Your task to perform on an android device: Open Amazon Image 0: 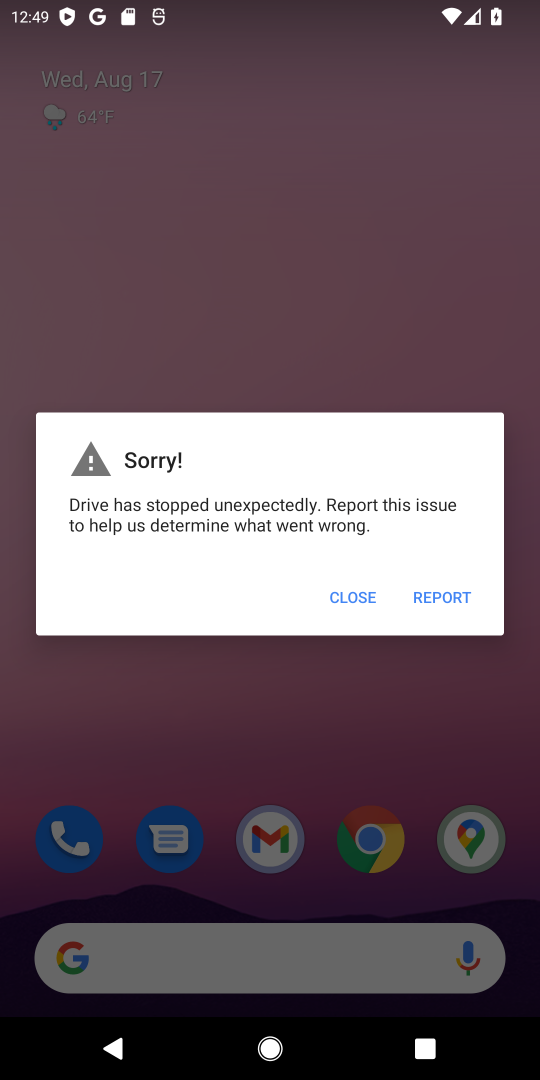
Step 0: press home button
Your task to perform on an android device: Open Amazon Image 1: 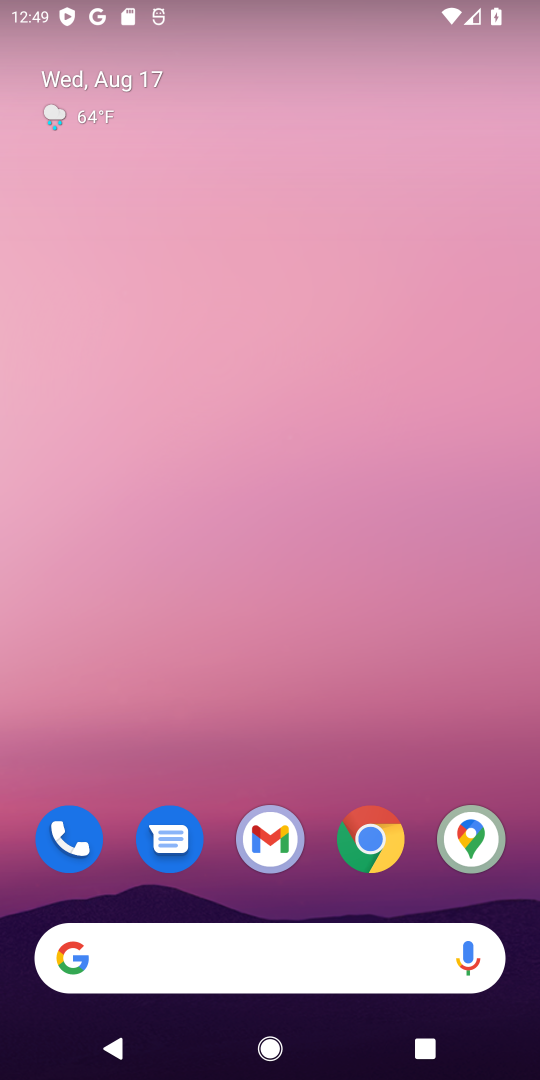
Step 1: drag from (205, 979) to (407, 155)
Your task to perform on an android device: Open Amazon Image 2: 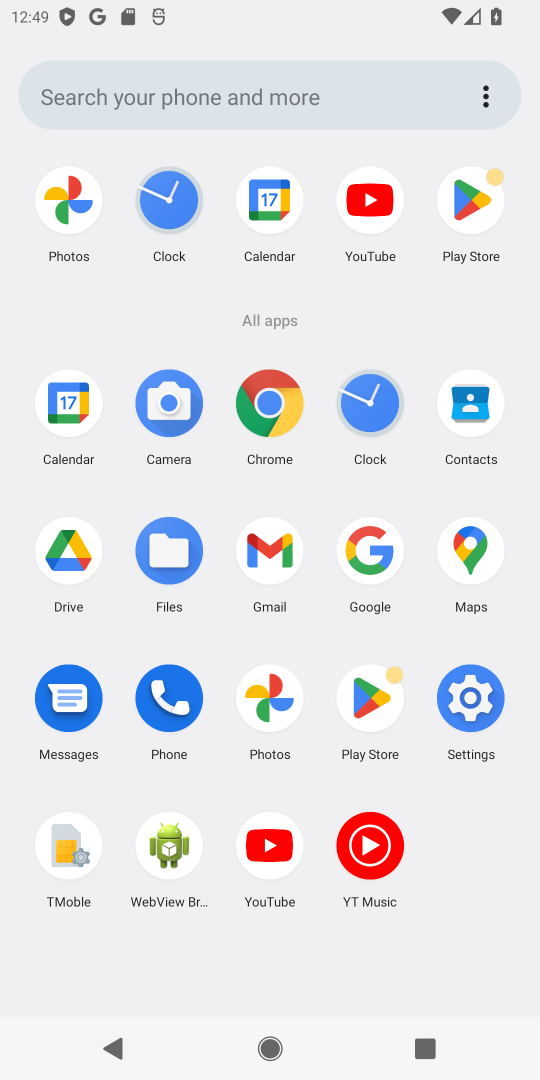
Step 2: click (363, 554)
Your task to perform on an android device: Open Amazon Image 3: 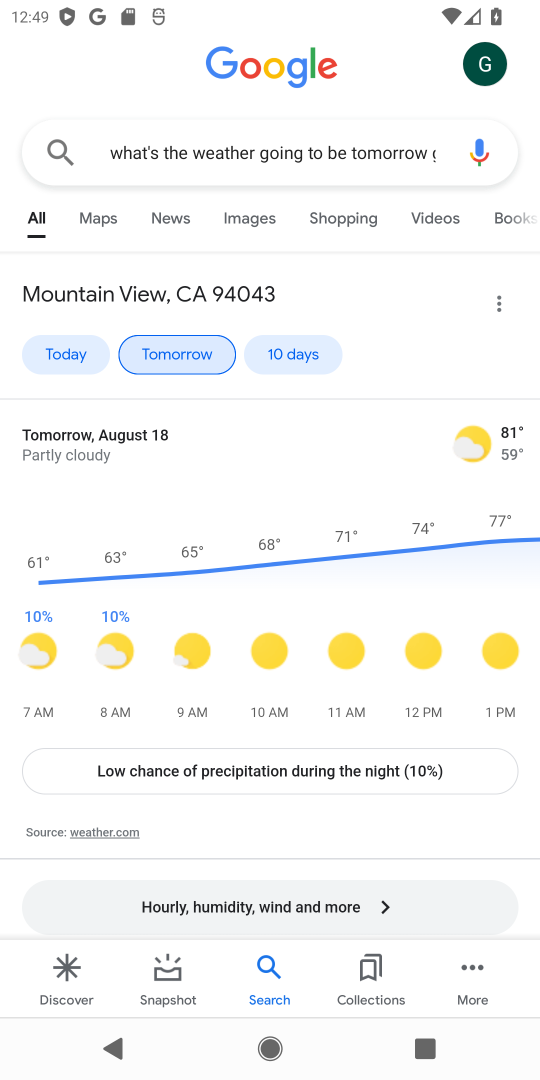
Step 3: click (441, 149)
Your task to perform on an android device: Open Amazon Image 4: 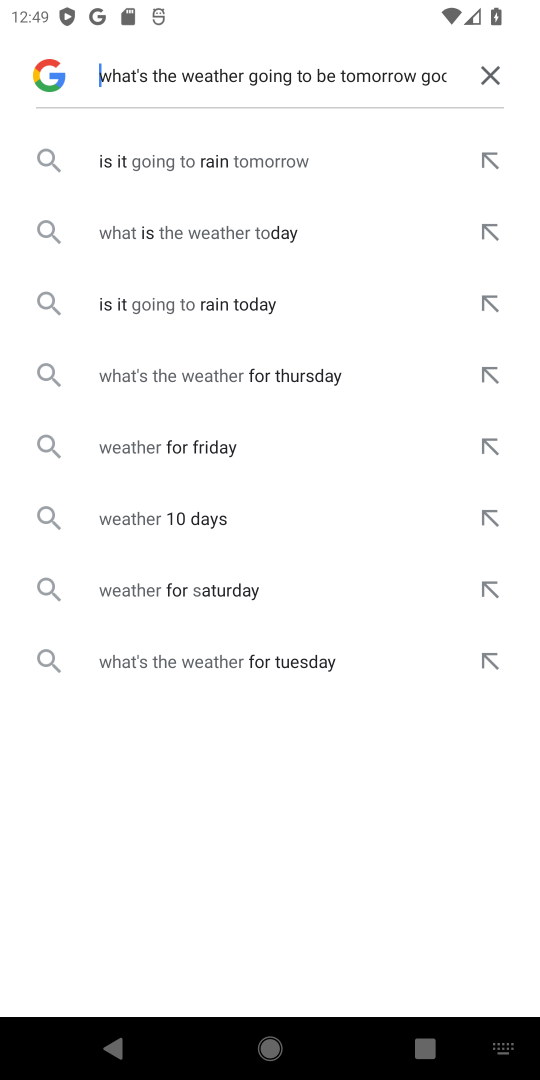
Step 4: click (490, 68)
Your task to perform on an android device: Open Amazon Image 5: 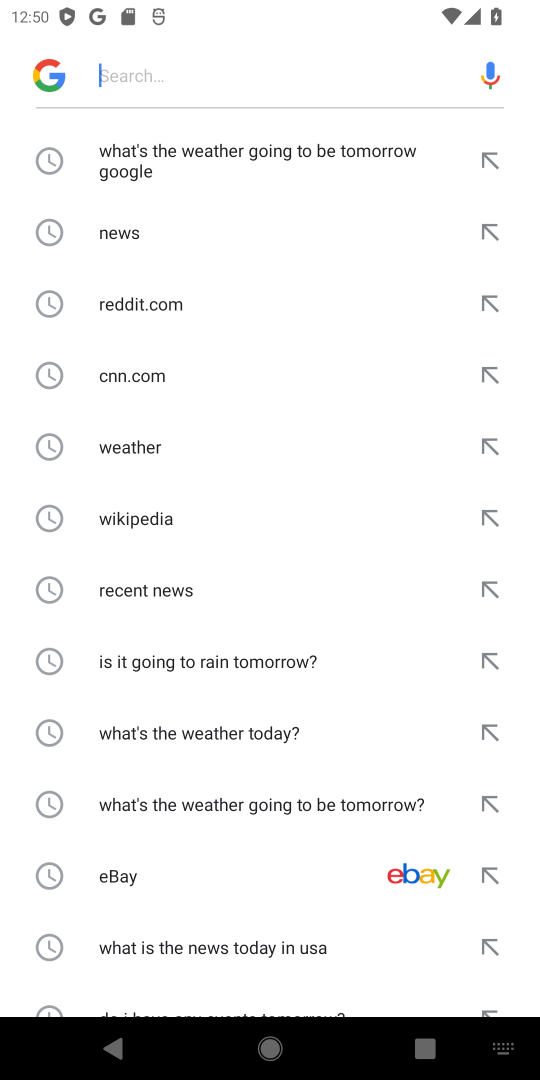
Step 5: type "Amazon"
Your task to perform on an android device: Open Amazon Image 6: 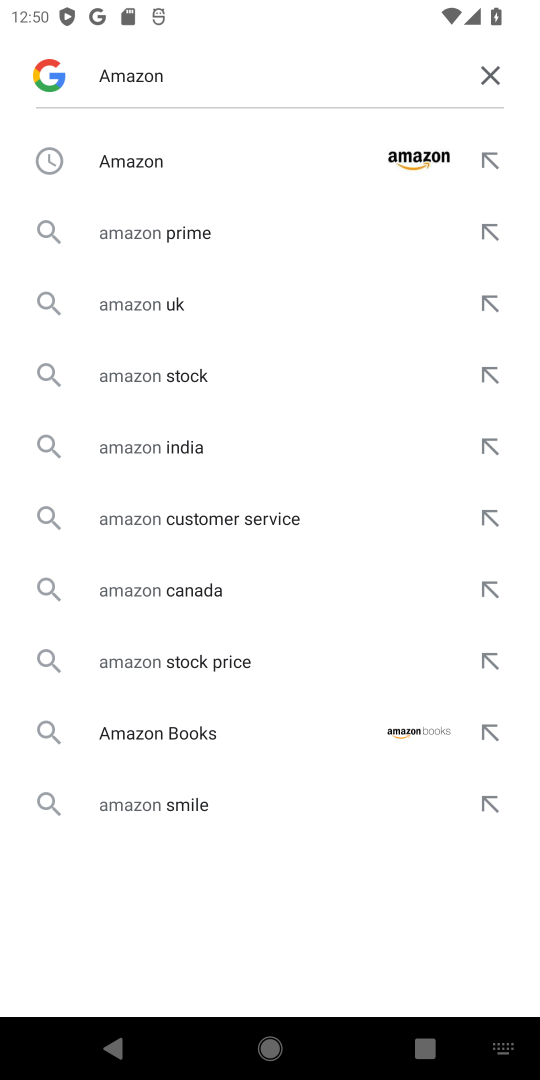
Step 6: click (139, 159)
Your task to perform on an android device: Open Amazon Image 7: 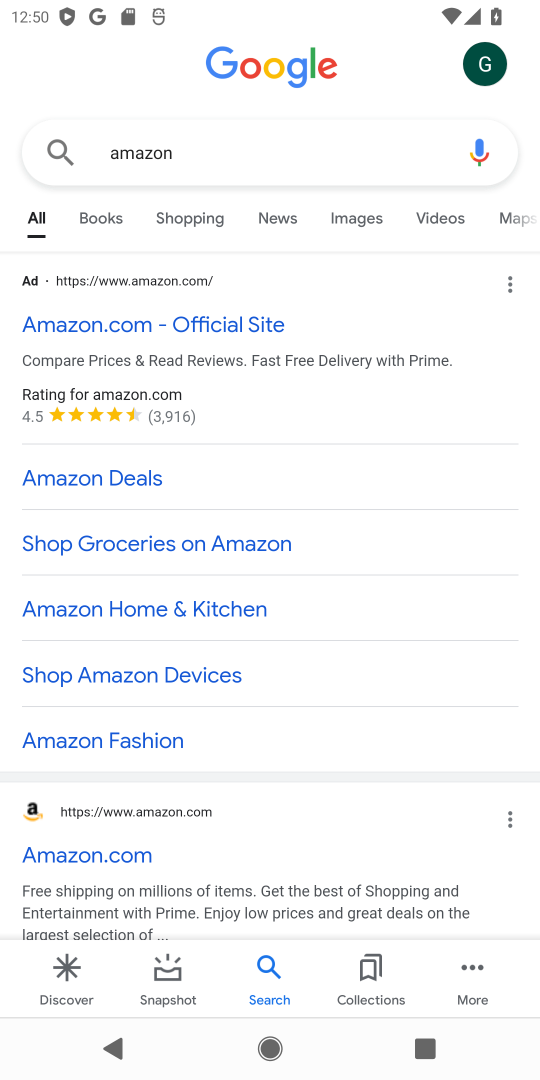
Step 7: click (123, 851)
Your task to perform on an android device: Open Amazon Image 8: 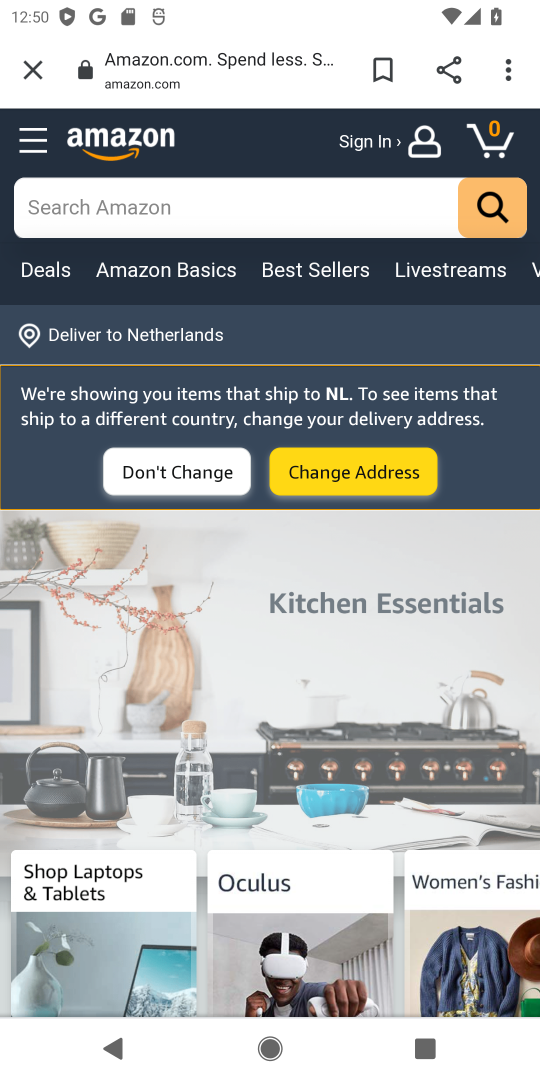
Step 8: task complete